Your task to perform on an android device: What's the weather? Image 0: 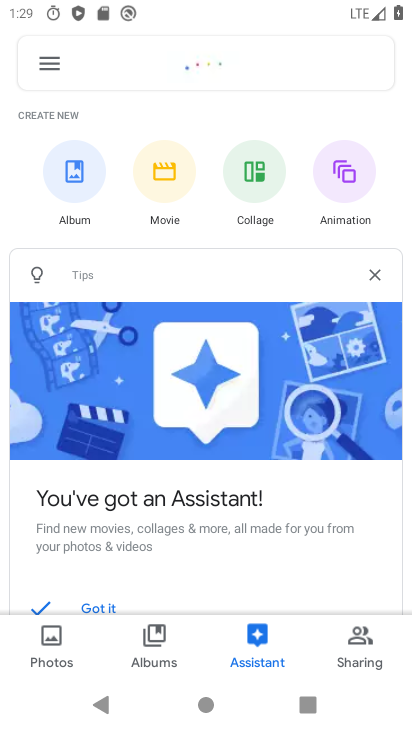
Step 0: press home button
Your task to perform on an android device: What's the weather? Image 1: 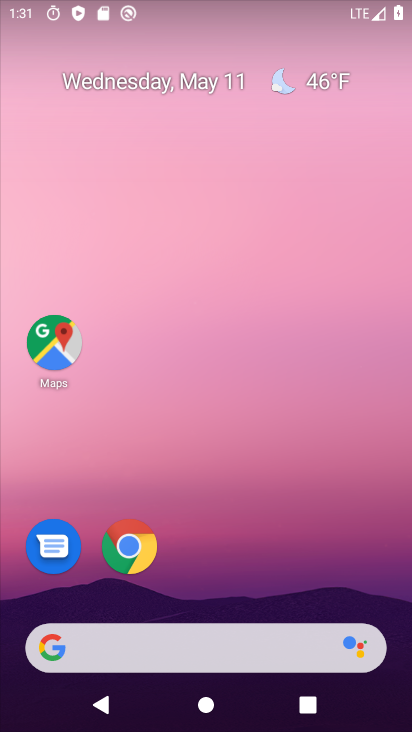
Step 1: drag from (282, 642) to (321, 244)
Your task to perform on an android device: What's the weather? Image 2: 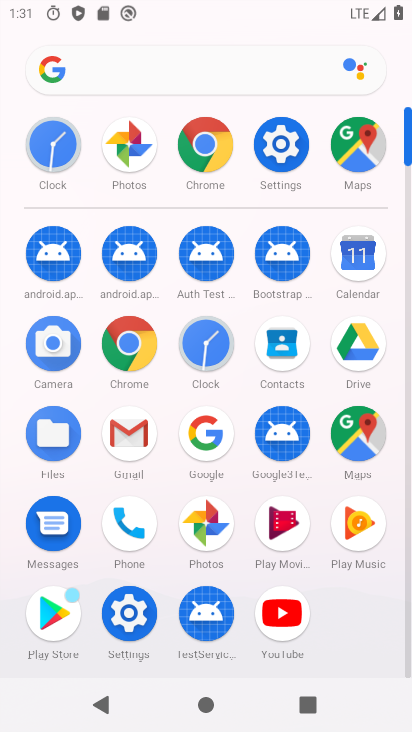
Step 2: click (139, 76)
Your task to perform on an android device: What's the weather? Image 3: 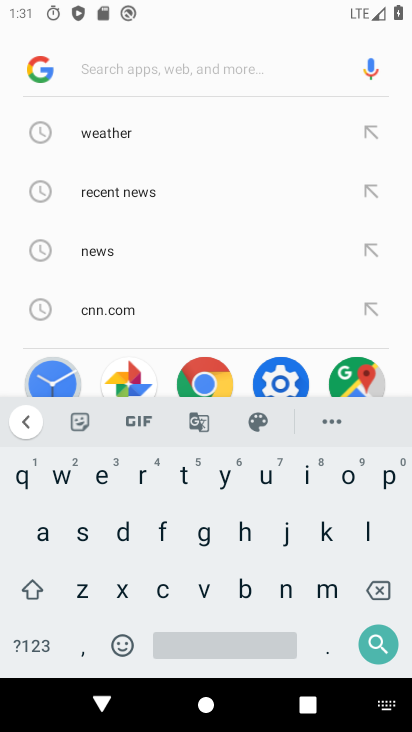
Step 3: click (102, 135)
Your task to perform on an android device: What's the weather? Image 4: 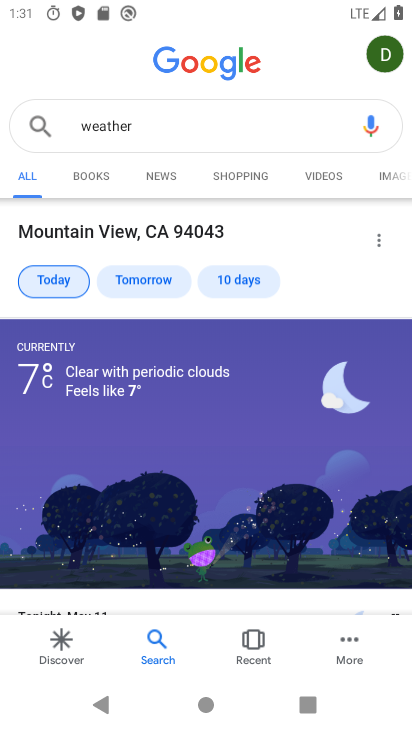
Step 4: task complete